Your task to perform on an android device: turn off priority inbox in the gmail app Image 0: 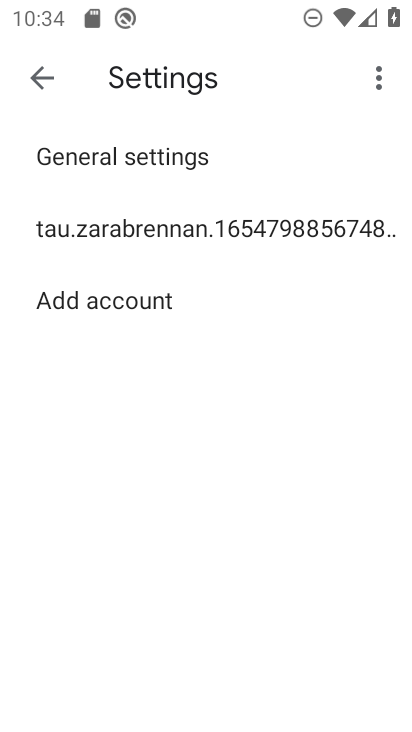
Step 0: press home button
Your task to perform on an android device: turn off priority inbox in the gmail app Image 1: 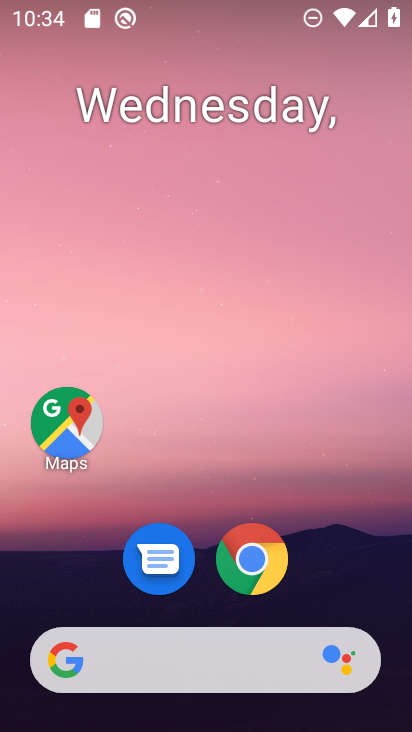
Step 1: drag from (330, 551) to (331, 208)
Your task to perform on an android device: turn off priority inbox in the gmail app Image 2: 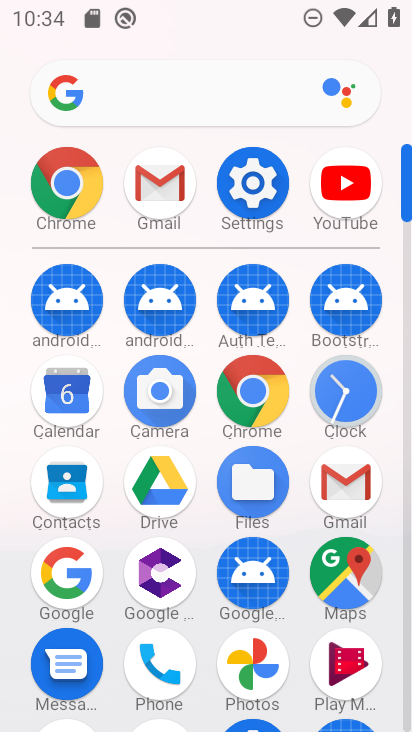
Step 2: click (357, 479)
Your task to perform on an android device: turn off priority inbox in the gmail app Image 3: 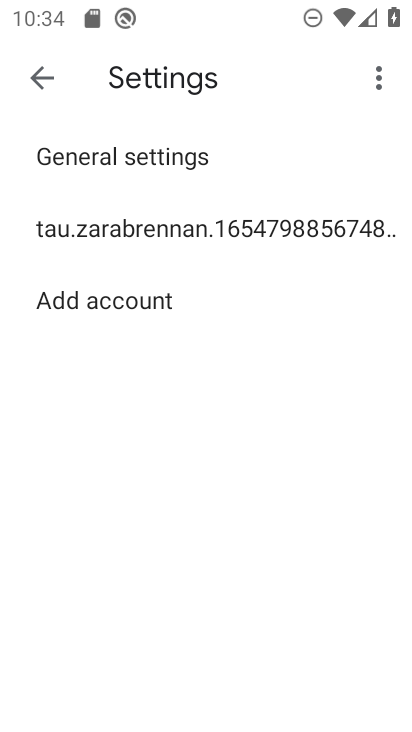
Step 3: click (192, 225)
Your task to perform on an android device: turn off priority inbox in the gmail app Image 4: 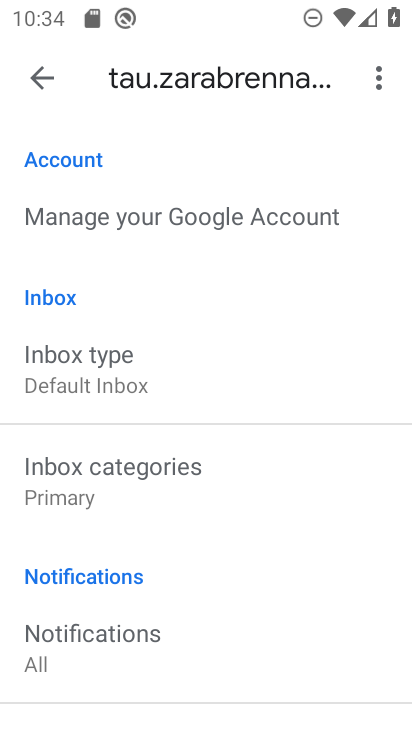
Step 4: task complete